Your task to perform on an android device: Set the phone to "Do not disturb". Image 0: 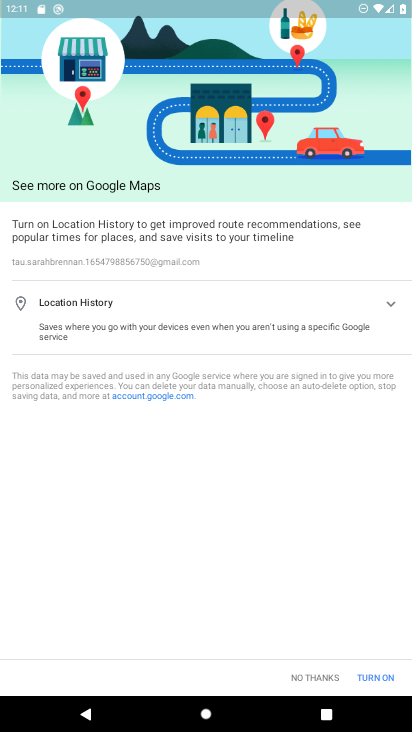
Step 0: press home button
Your task to perform on an android device: Set the phone to "Do not disturb". Image 1: 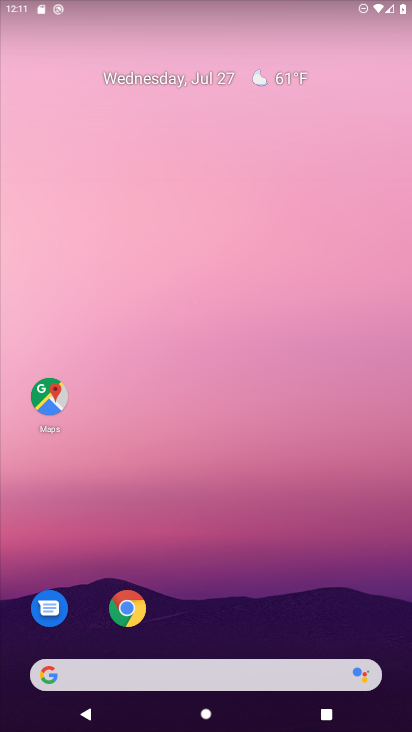
Step 1: drag from (369, 575) to (359, 214)
Your task to perform on an android device: Set the phone to "Do not disturb". Image 2: 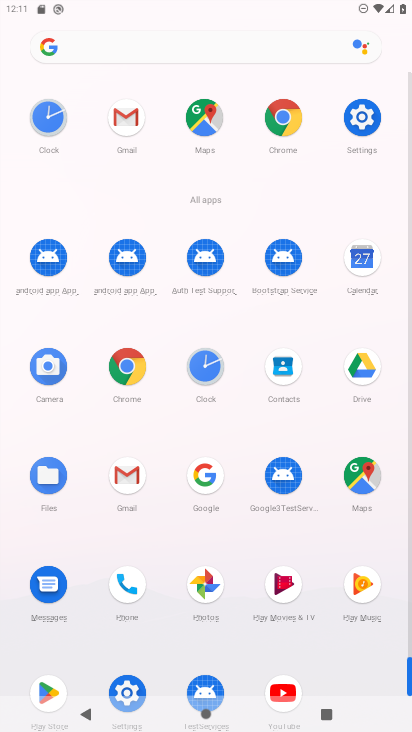
Step 2: click (361, 132)
Your task to perform on an android device: Set the phone to "Do not disturb". Image 3: 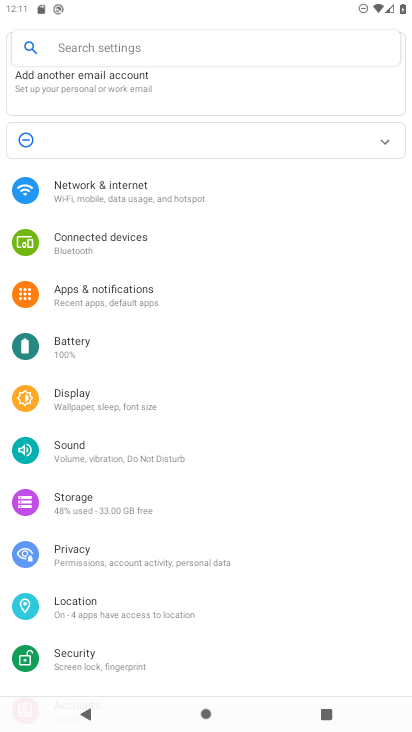
Step 3: drag from (342, 497) to (337, 437)
Your task to perform on an android device: Set the phone to "Do not disturb". Image 4: 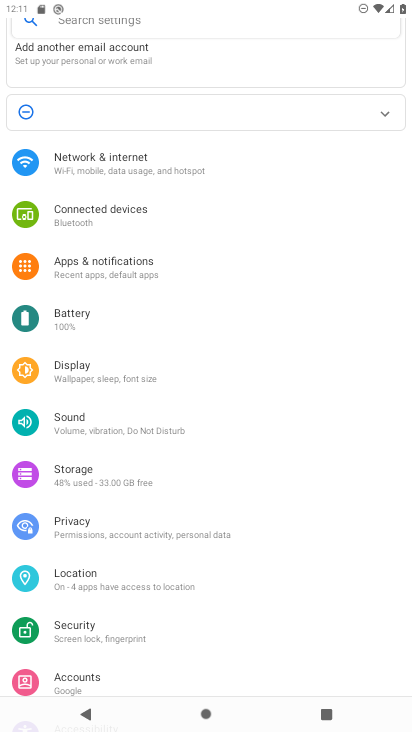
Step 4: drag from (328, 522) to (331, 459)
Your task to perform on an android device: Set the phone to "Do not disturb". Image 5: 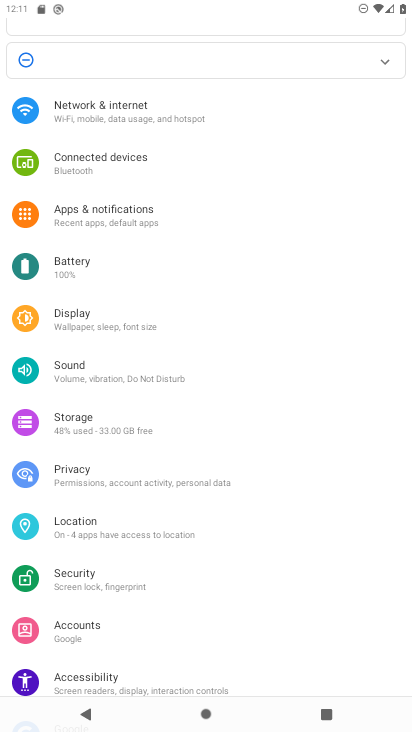
Step 5: drag from (324, 534) to (325, 431)
Your task to perform on an android device: Set the phone to "Do not disturb". Image 6: 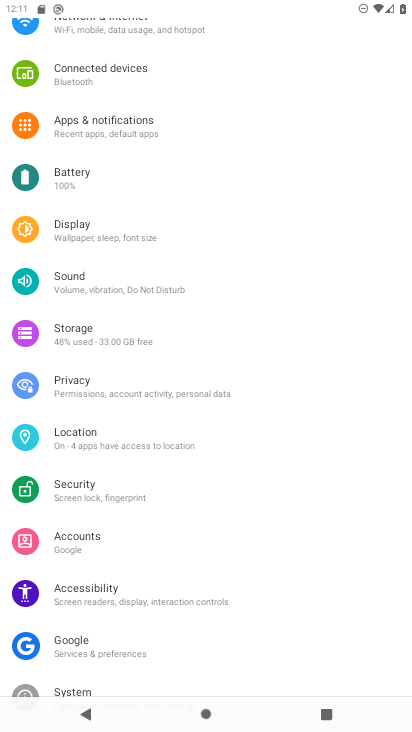
Step 6: drag from (315, 534) to (315, 452)
Your task to perform on an android device: Set the phone to "Do not disturb". Image 7: 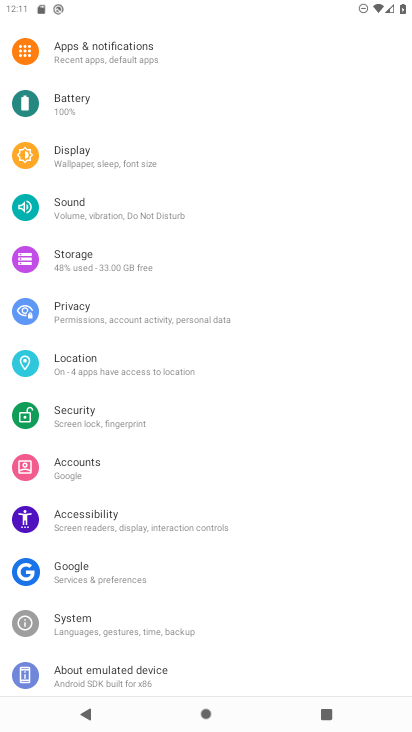
Step 7: drag from (311, 548) to (311, 451)
Your task to perform on an android device: Set the phone to "Do not disturb". Image 8: 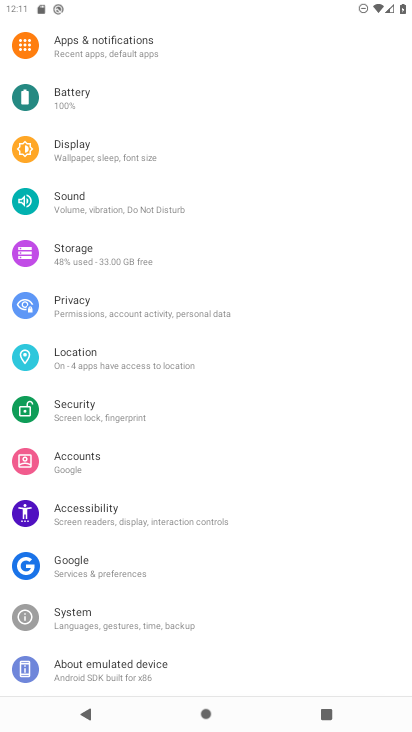
Step 8: drag from (301, 314) to (299, 396)
Your task to perform on an android device: Set the phone to "Do not disturb". Image 9: 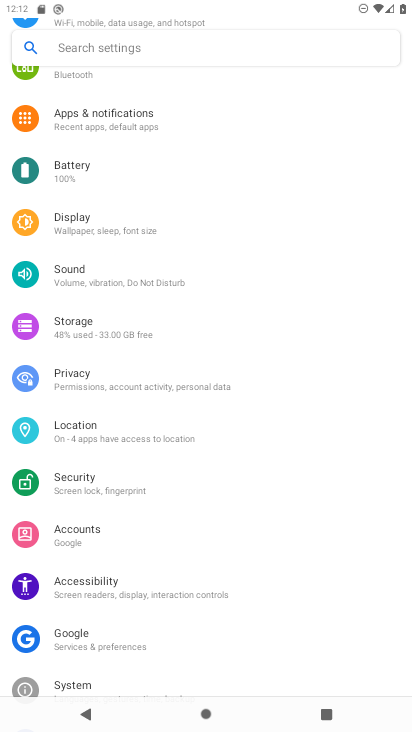
Step 9: drag from (313, 315) to (313, 406)
Your task to perform on an android device: Set the phone to "Do not disturb". Image 10: 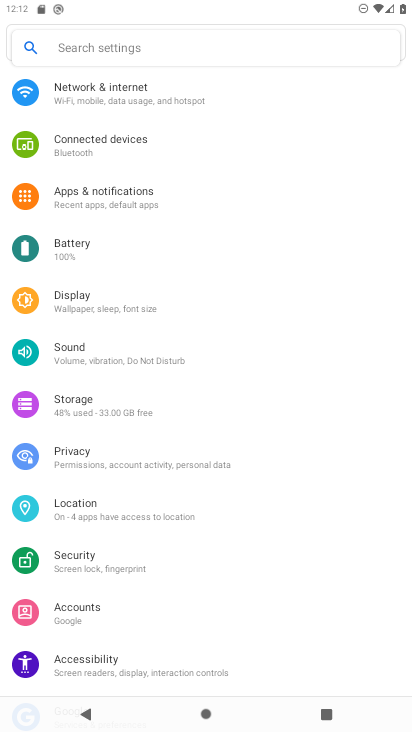
Step 10: drag from (315, 285) to (310, 534)
Your task to perform on an android device: Set the phone to "Do not disturb". Image 11: 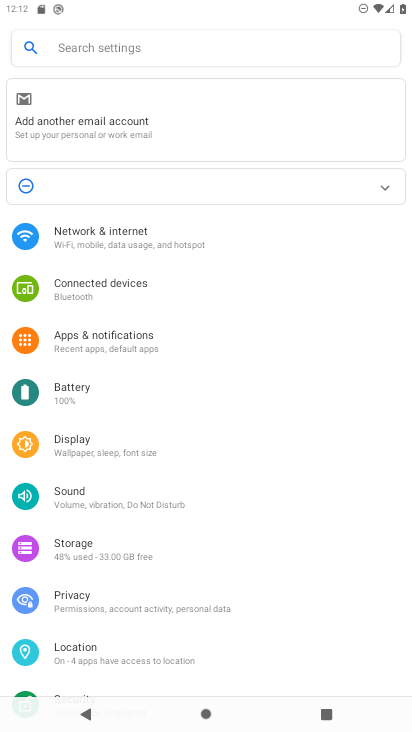
Step 11: click (174, 509)
Your task to perform on an android device: Set the phone to "Do not disturb". Image 12: 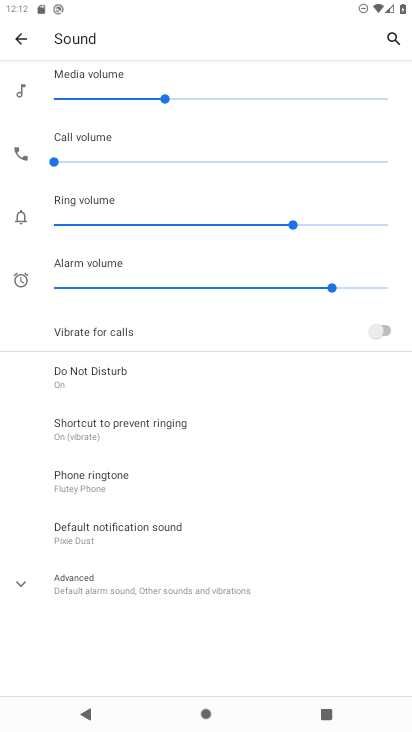
Step 12: click (120, 378)
Your task to perform on an android device: Set the phone to "Do not disturb". Image 13: 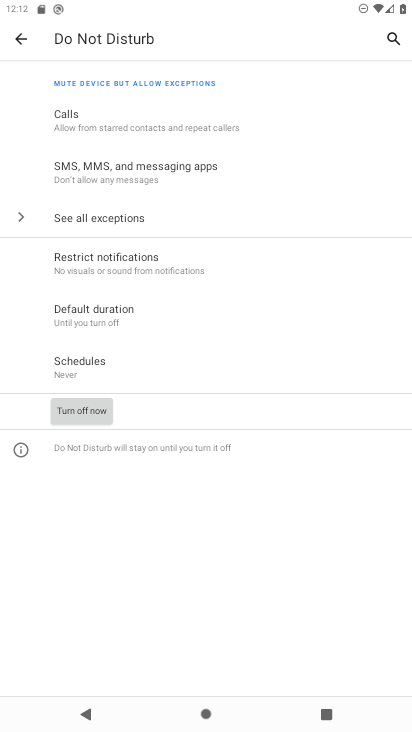
Step 13: task complete